Your task to perform on an android device: check android version Image 0: 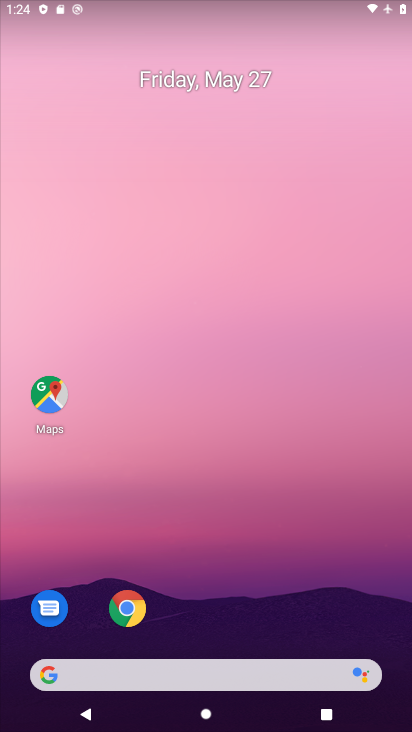
Step 0: drag from (159, 680) to (265, 114)
Your task to perform on an android device: check android version Image 1: 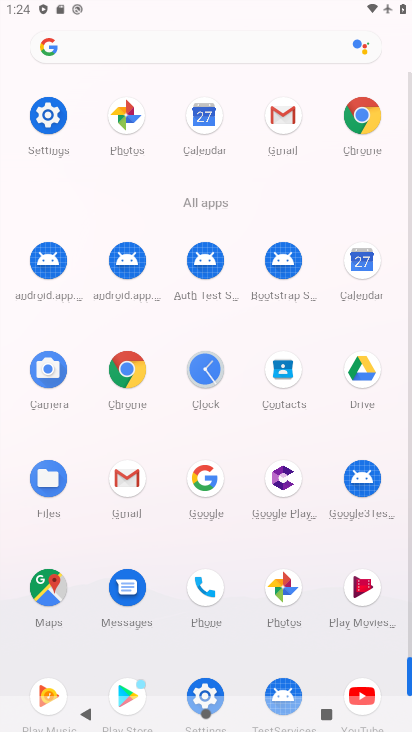
Step 1: drag from (194, 605) to (299, 353)
Your task to perform on an android device: check android version Image 2: 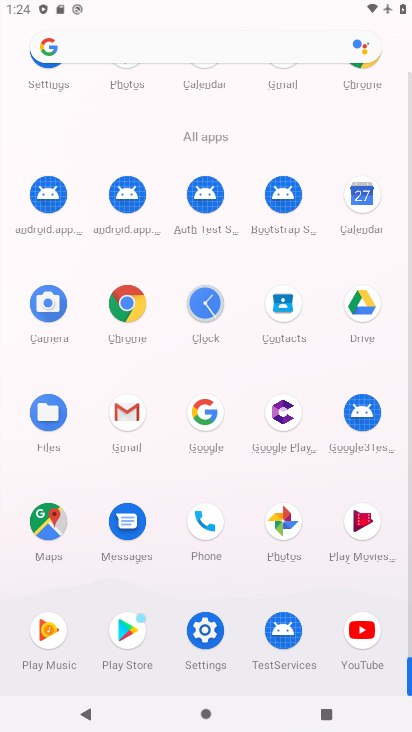
Step 2: click (208, 625)
Your task to perform on an android device: check android version Image 3: 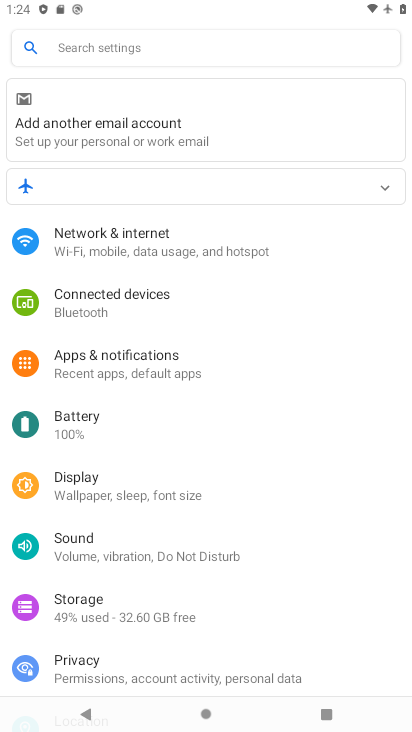
Step 3: drag from (252, 614) to (369, 44)
Your task to perform on an android device: check android version Image 4: 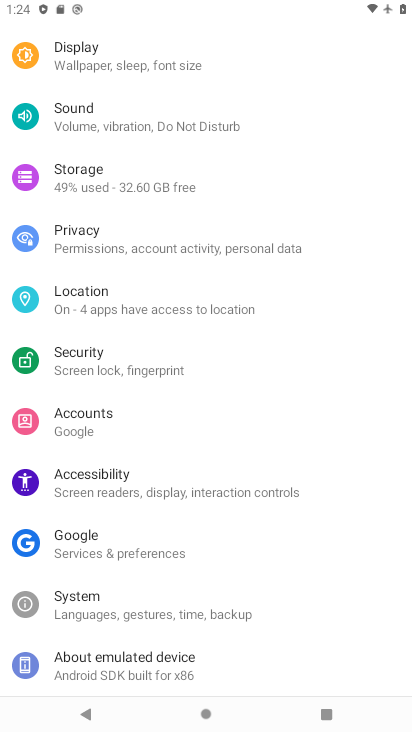
Step 4: drag from (292, 577) to (343, 234)
Your task to perform on an android device: check android version Image 5: 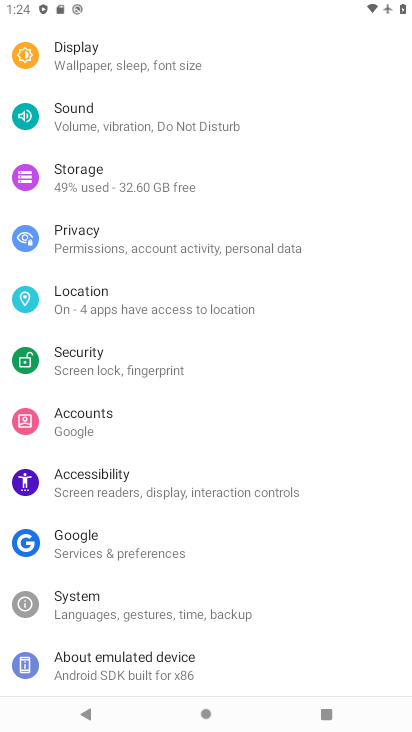
Step 5: click (159, 663)
Your task to perform on an android device: check android version Image 6: 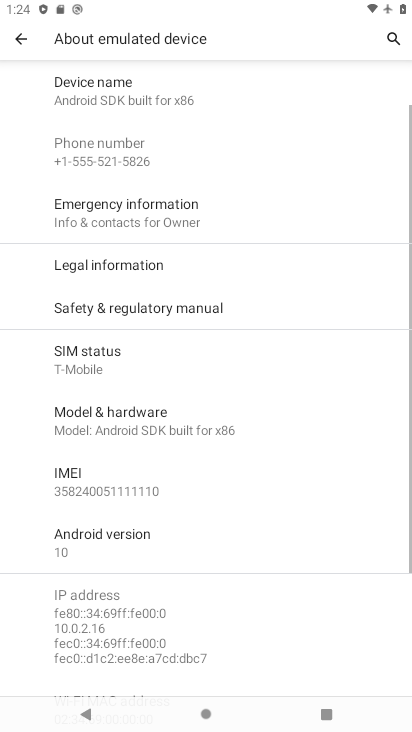
Step 6: click (127, 531)
Your task to perform on an android device: check android version Image 7: 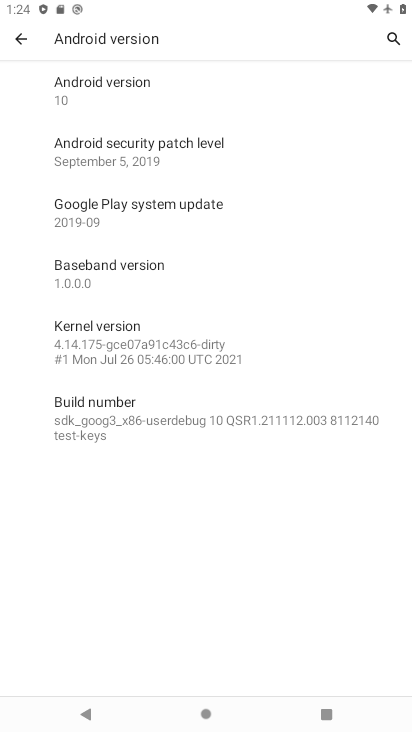
Step 7: task complete